Your task to perform on an android device: turn off priority inbox in the gmail app Image 0: 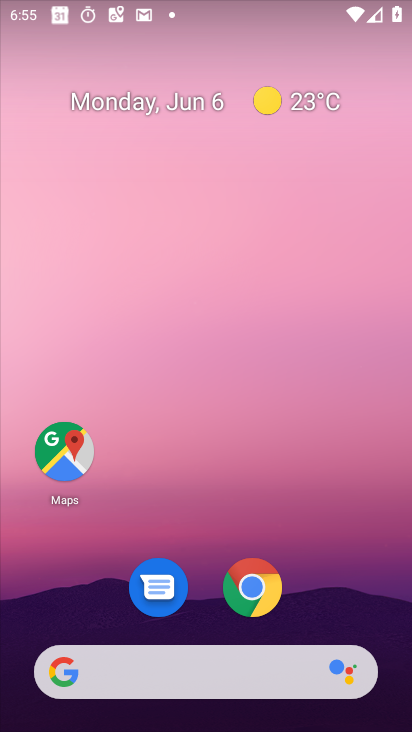
Step 0: drag from (393, 653) to (284, 17)
Your task to perform on an android device: turn off priority inbox in the gmail app Image 1: 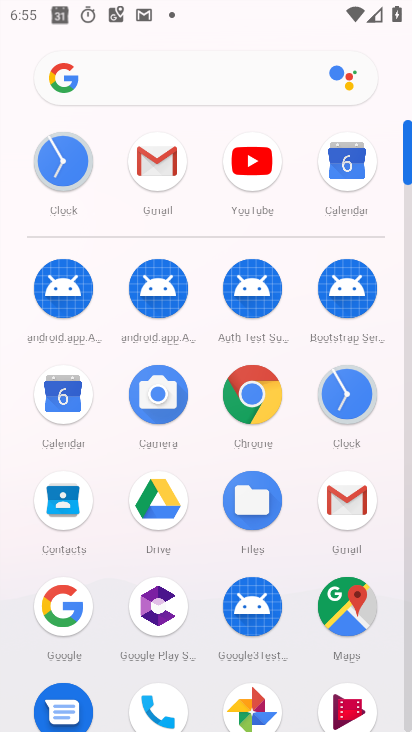
Step 1: click (341, 483)
Your task to perform on an android device: turn off priority inbox in the gmail app Image 2: 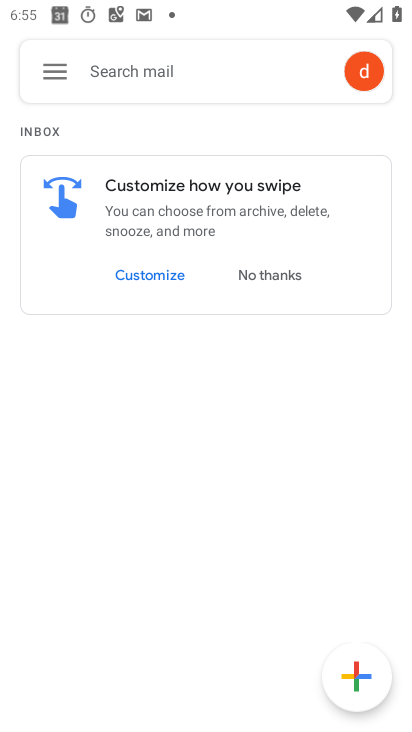
Step 2: click (62, 62)
Your task to perform on an android device: turn off priority inbox in the gmail app Image 3: 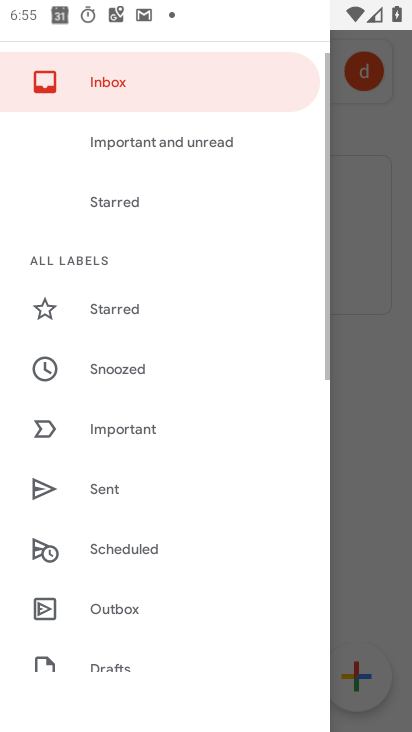
Step 3: drag from (122, 635) to (184, 58)
Your task to perform on an android device: turn off priority inbox in the gmail app Image 4: 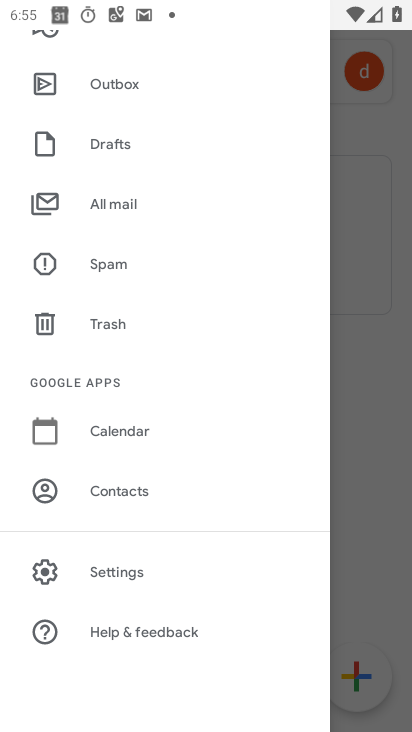
Step 4: click (132, 564)
Your task to perform on an android device: turn off priority inbox in the gmail app Image 5: 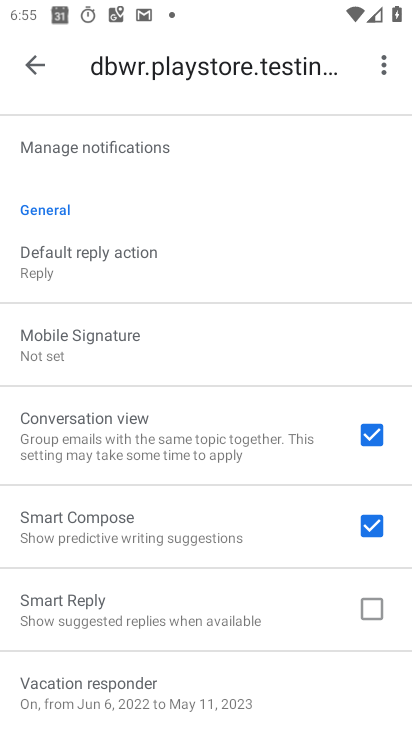
Step 5: drag from (173, 172) to (178, 663)
Your task to perform on an android device: turn off priority inbox in the gmail app Image 6: 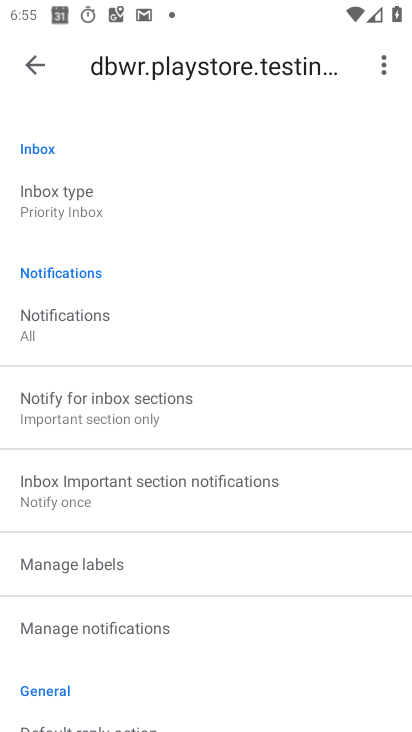
Step 6: drag from (157, 179) to (167, 602)
Your task to perform on an android device: turn off priority inbox in the gmail app Image 7: 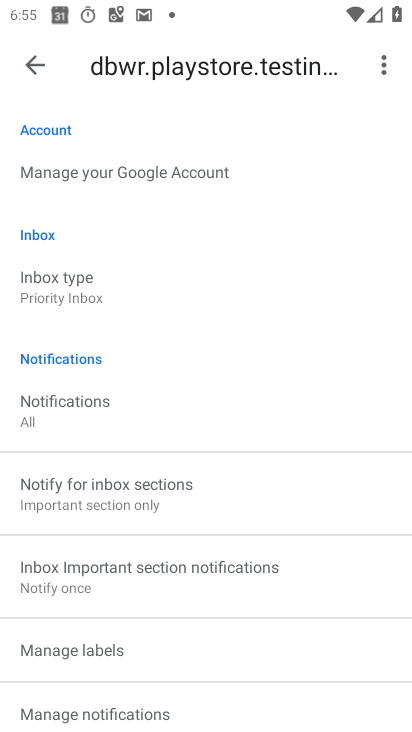
Step 7: click (87, 302)
Your task to perform on an android device: turn off priority inbox in the gmail app Image 8: 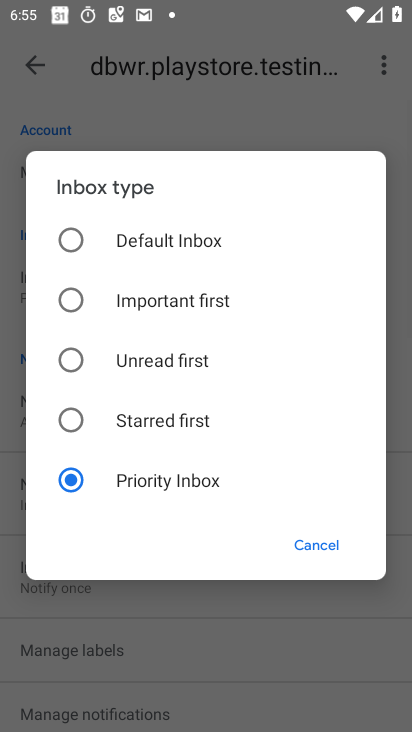
Step 8: click (71, 238)
Your task to perform on an android device: turn off priority inbox in the gmail app Image 9: 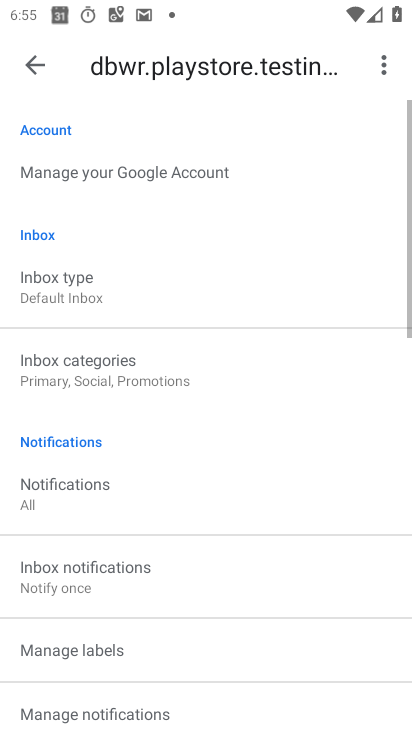
Step 9: task complete